Your task to perform on an android device: What's the weather today? Image 0: 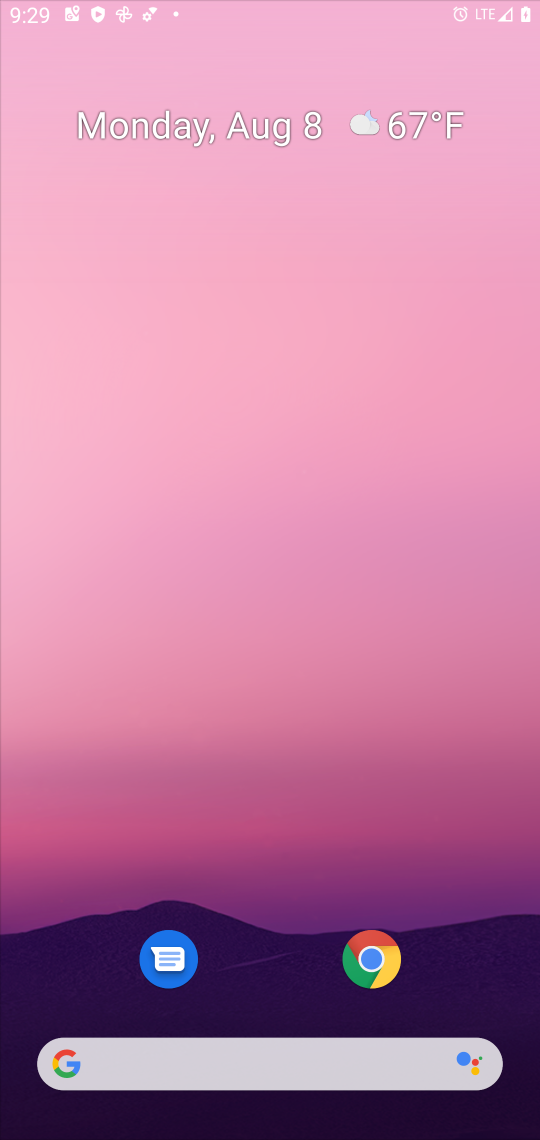
Step 0: drag from (336, 116) to (313, 43)
Your task to perform on an android device: What's the weather today? Image 1: 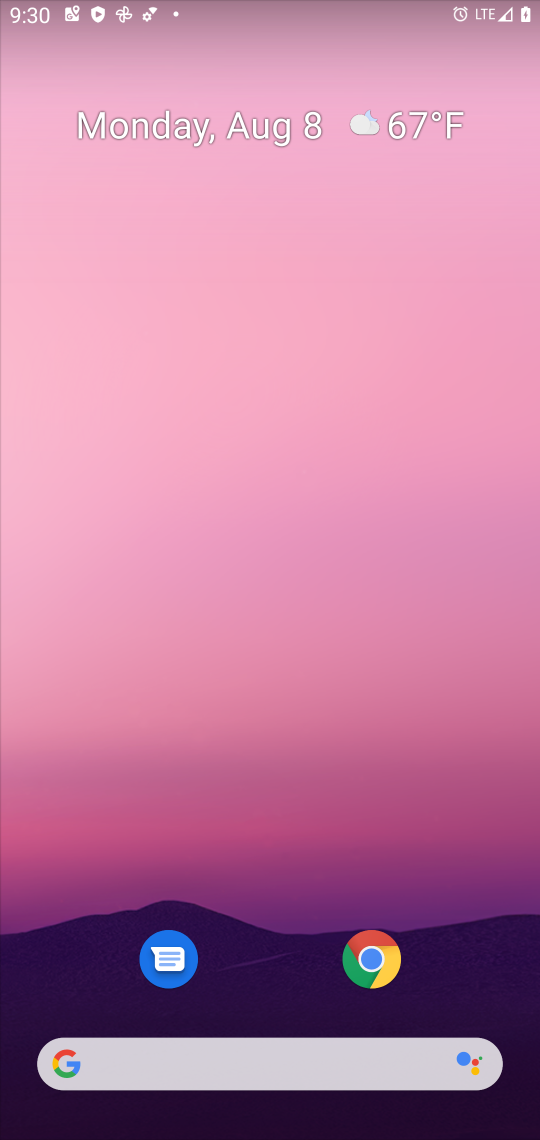
Step 1: drag from (478, 965) to (227, 94)
Your task to perform on an android device: What's the weather today? Image 2: 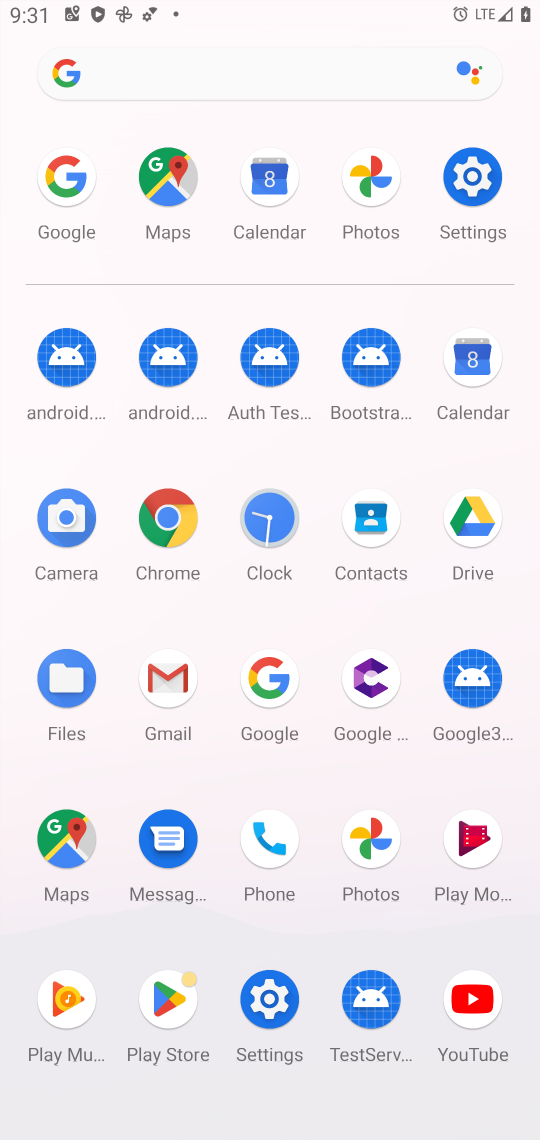
Step 2: click (279, 708)
Your task to perform on an android device: What's the weather today? Image 3: 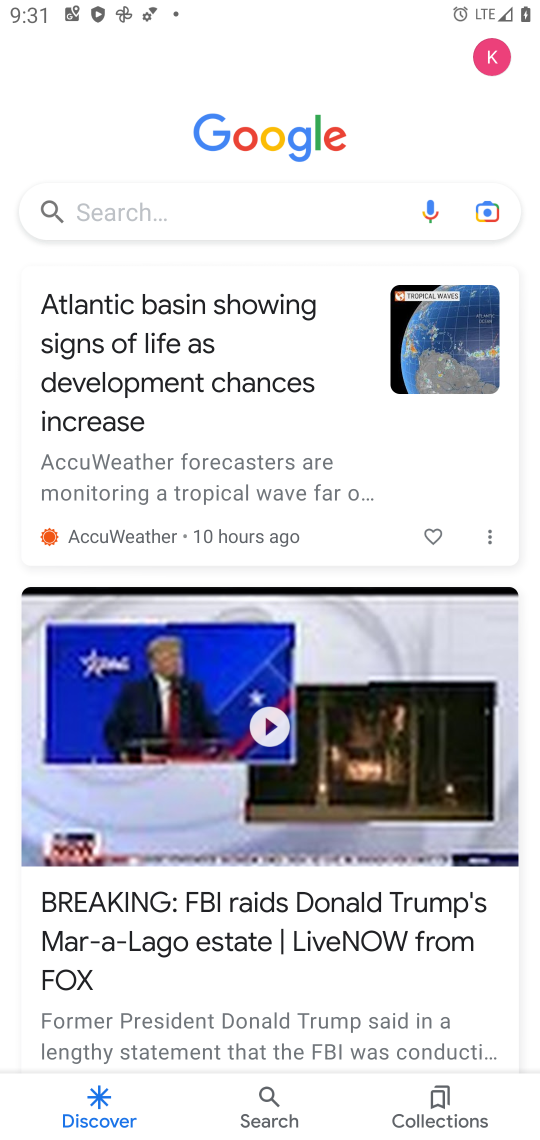
Step 3: click (183, 216)
Your task to perform on an android device: What's the weather today? Image 4: 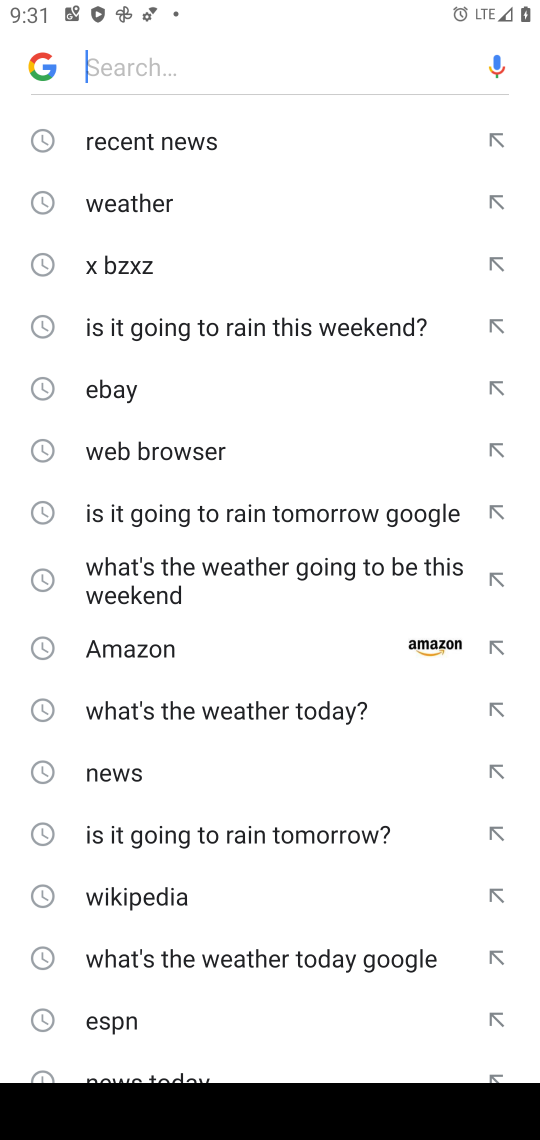
Step 4: type "What's the weather today?"
Your task to perform on an android device: What's the weather today? Image 5: 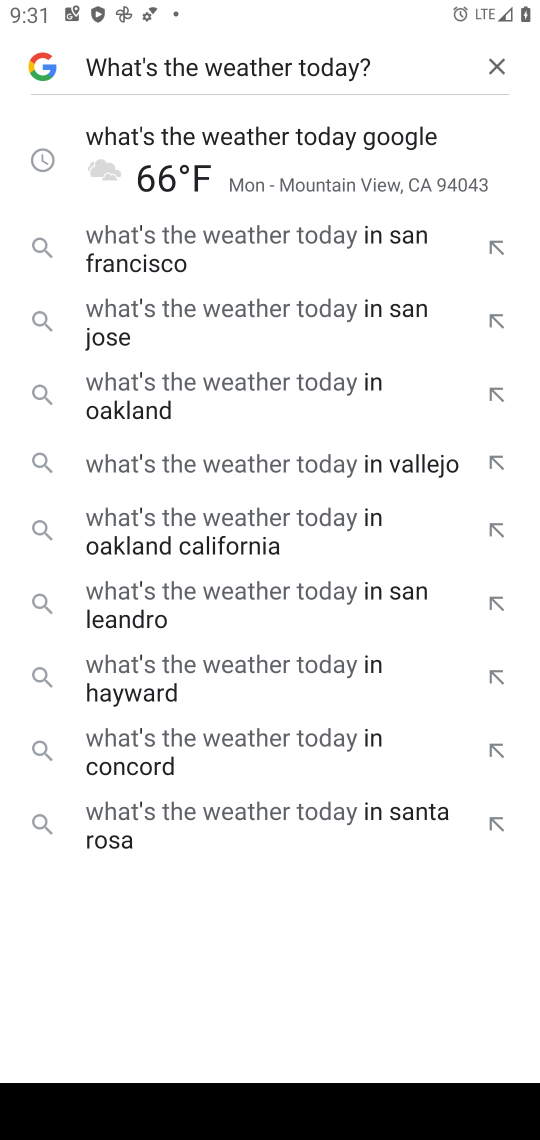
Step 5: click (287, 166)
Your task to perform on an android device: What's the weather today? Image 6: 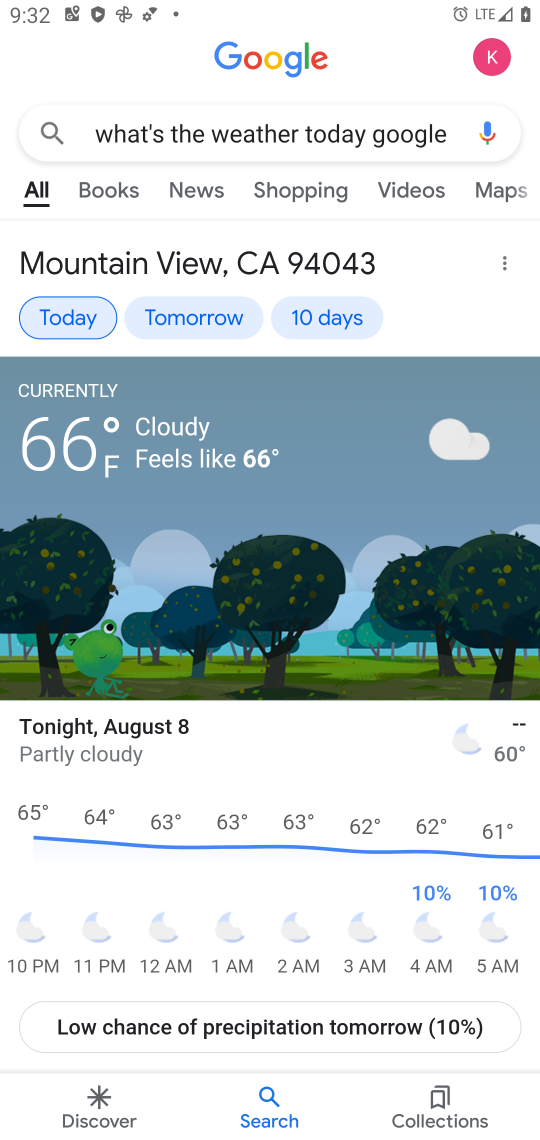
Step 6: task complete